Your task to perform on an android device: Do I have any events this weekend? Image 0: 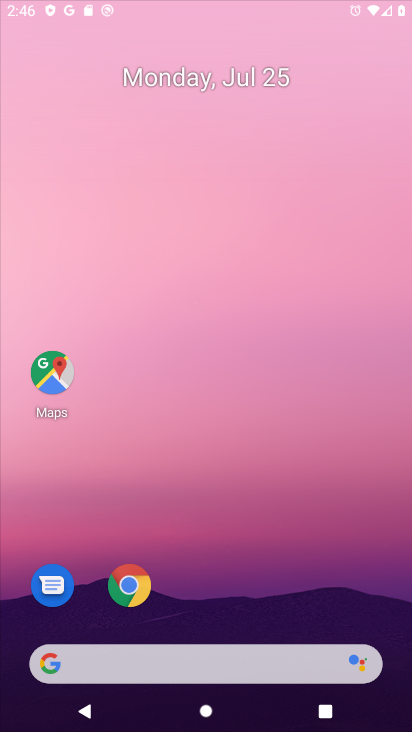
Step 0: press home button
Your task to perform on an android device: Do I have any events this weekend? Image 1: 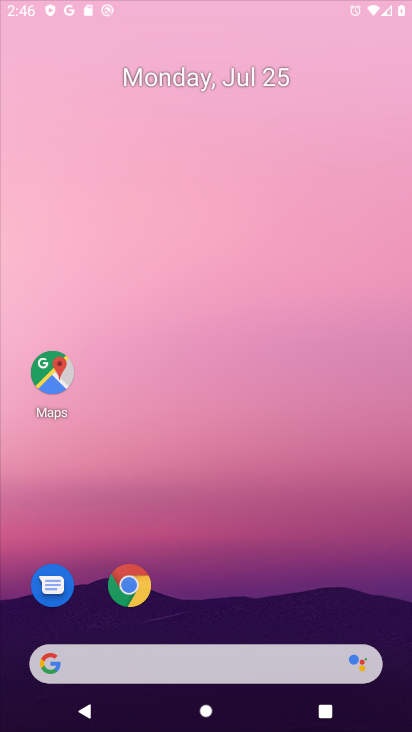
Step 1: click (246, 71)
Your task to perform on an android device: Do I have any events this weekend? Image 2: 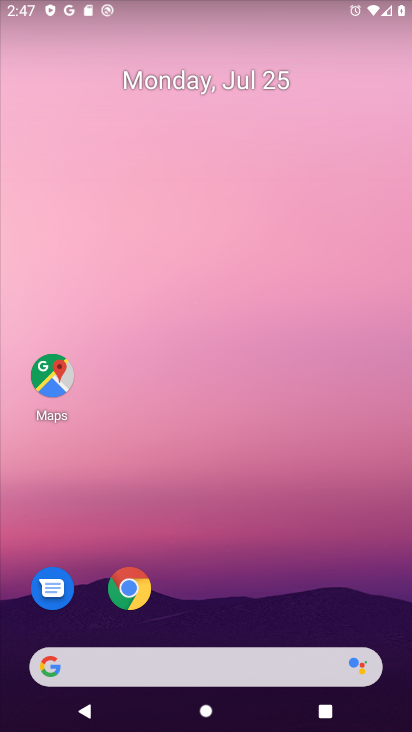
Step 2: drag from (254, 605) to (250, 78)
Your task to perform on an android device: Do I have any events this weekend? Image 3: 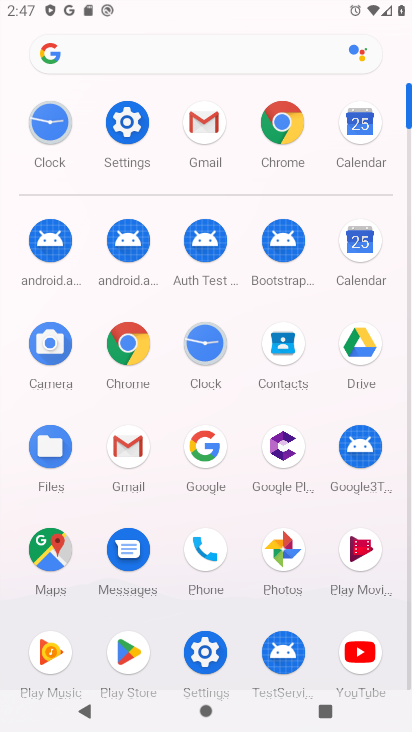
Step 3: click (358, 239)
Your task to perform on an android device: Do I have any events this weekend? Image 4: 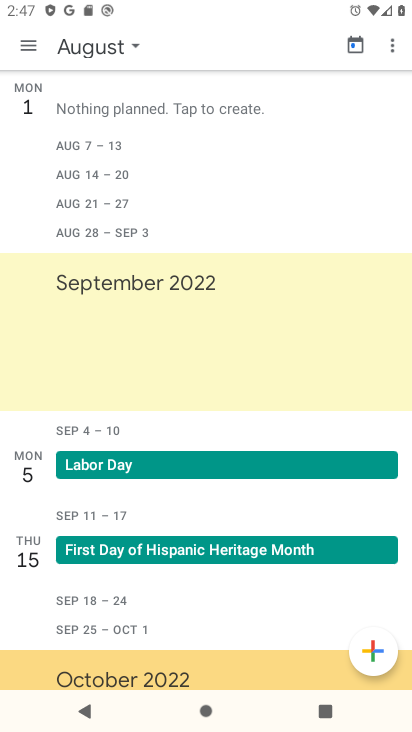
Step 4: click (21, 43)
Your task to perform on an android device: Do I have any events this weekend? Image 5: 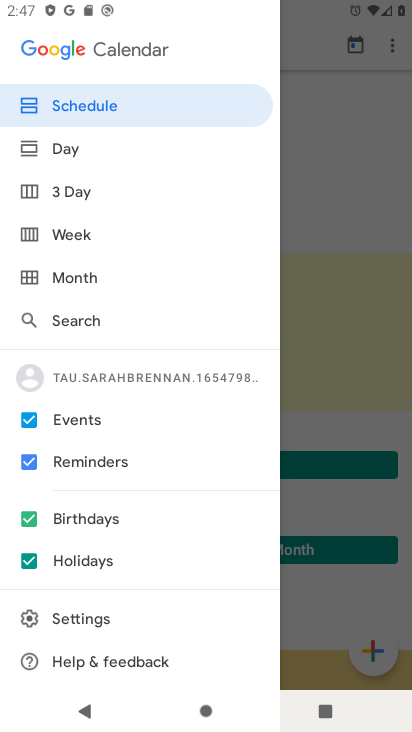
Step 5: click (72, 227)
Your task to perform on an android device: Do I have any events this weekend? Image 6: 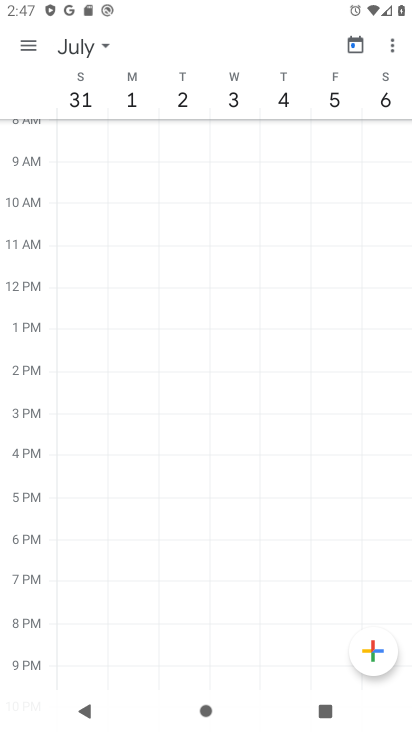
Step 6: task complete